Your task to perform on an android device: Go to Yahoo.com Image 0: 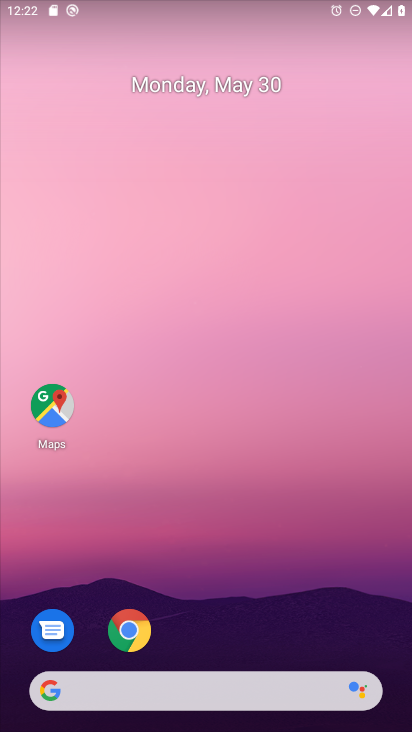
Step 0: press home button
Your task to perform on an android device: Go to Yahoo.com Image 1: 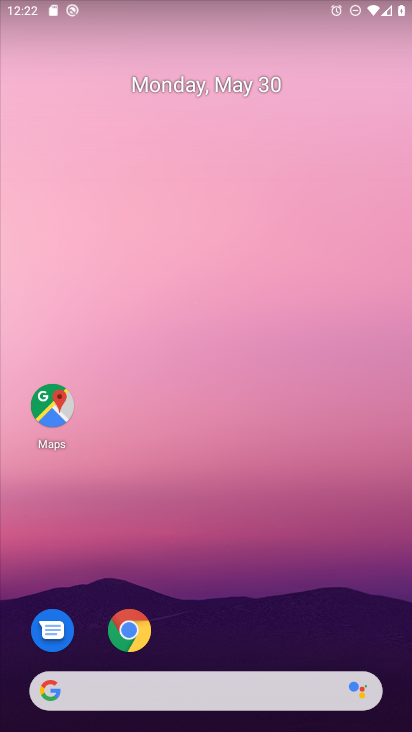
Step 1: click (130, 641)
Your task to perform on an android device: Go to Yahoo.com Image 2: 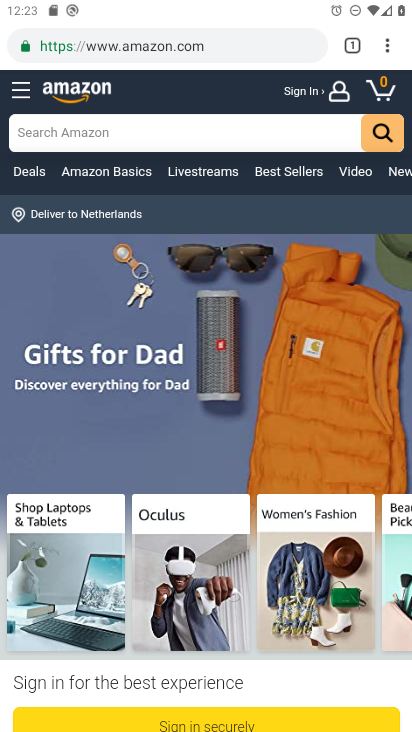
Step 2: drag from (387, 41) to (297, 97)
Your task to perform on an android device: Go to Yahoo.com Image 3: 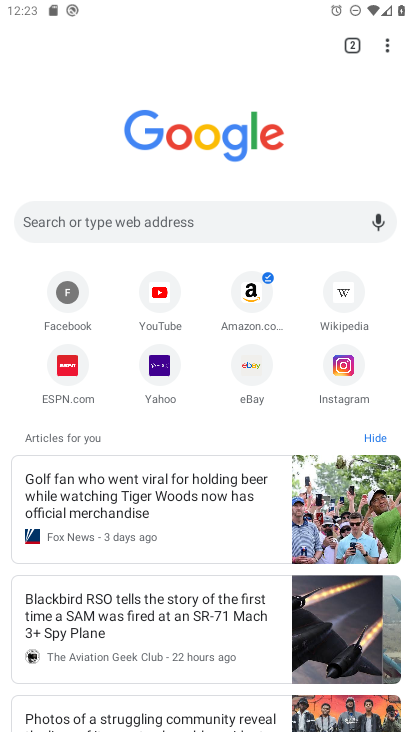
Step 3: click (163, 365)
Your task to perform on an android device: Go to Yahoo.com Image 4: 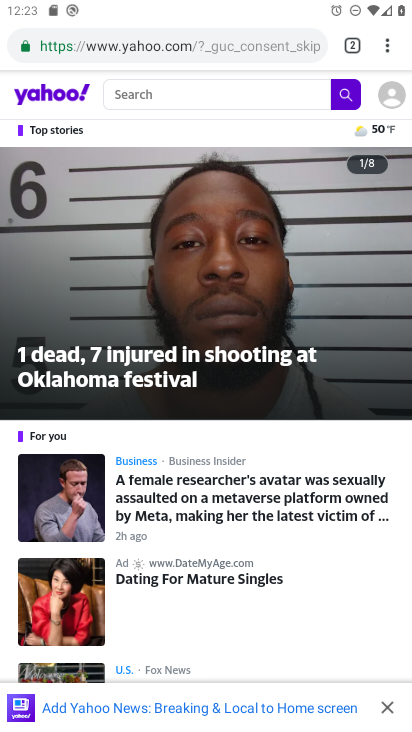
Step 4: task complete